Your task to perform on an android device: set the timer Image 0: 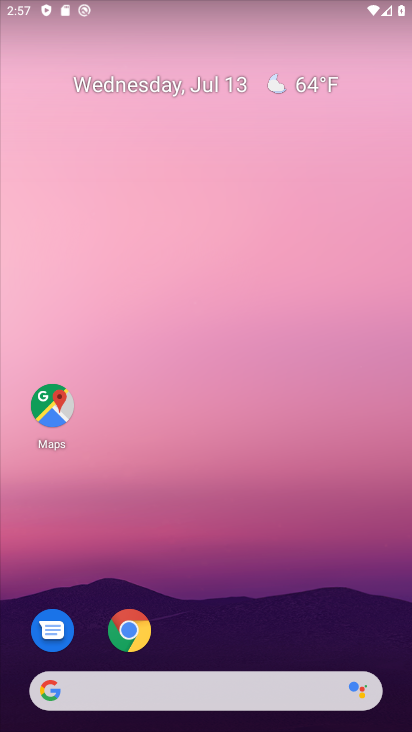
Step 0: drag from (295, 578) to (337, 94)
Your task to perform on an android device: set the timer Image 1: 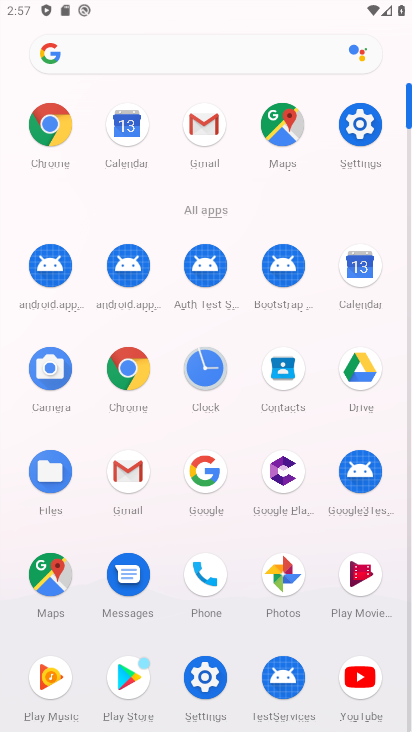
Step 1: click (196, 368)
Your task to perform on an android device: set the timer Image 2: 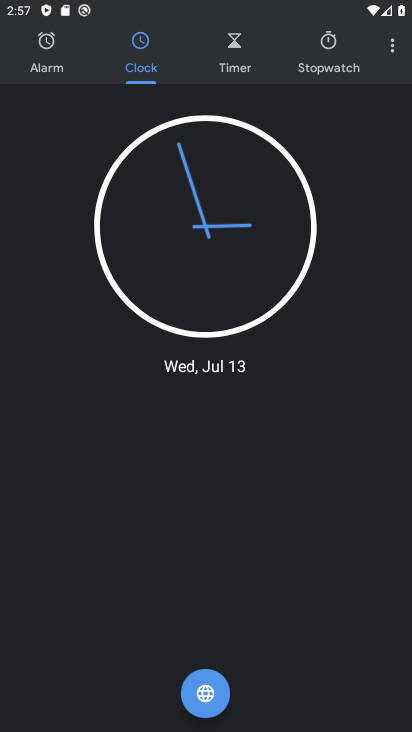
Step 2: click (241, 73)
Your task to perform on an android device: set the timer Image 3: 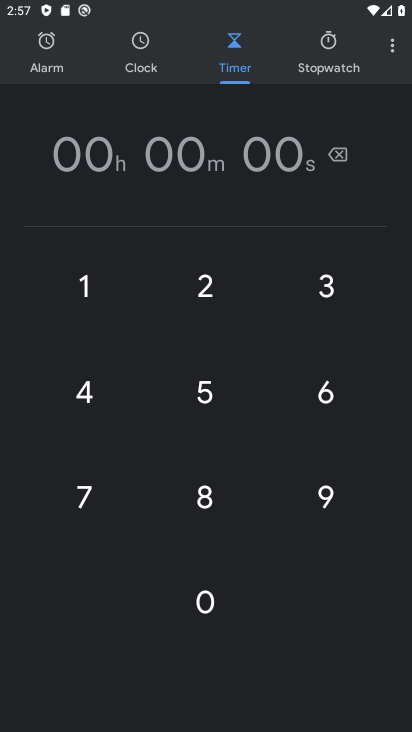
Step 3: click (200, 424)
Your task to perform on an android device: set the timer Image 4: 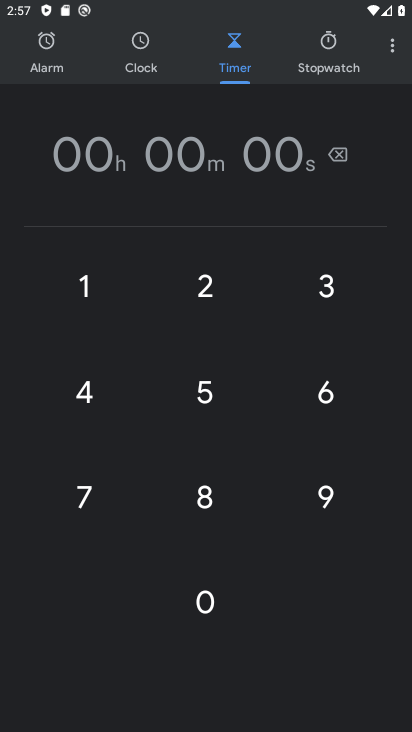
Step 4: click (200, 424)
Your task to perform on an android device: set the timer Image 5: 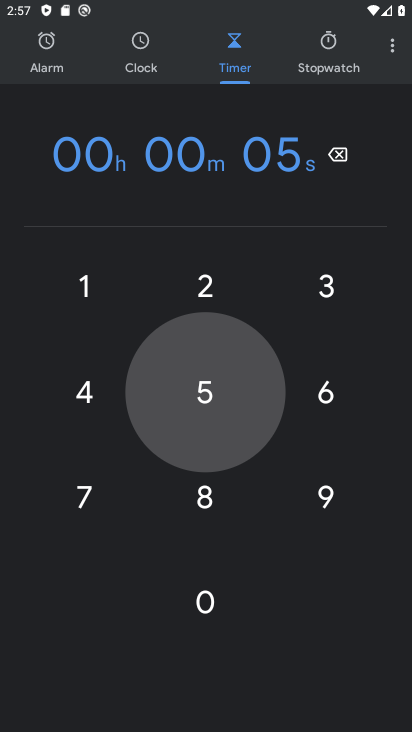
Step 5: click (200, 424)
Your task to perform on an android device: set the timer Image 6: 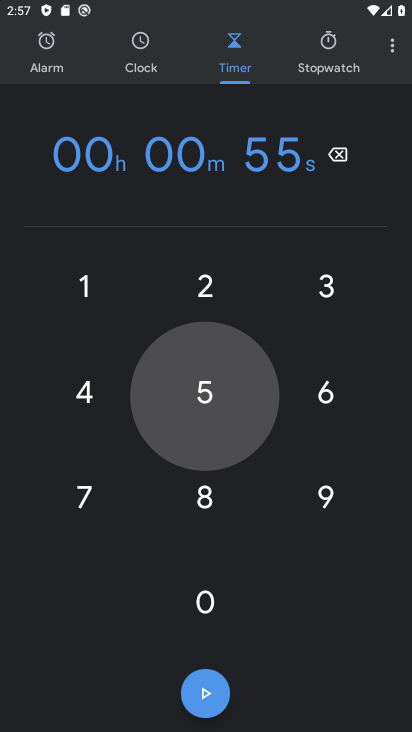
Step 6: click (200, 424)
Your task to perform on an android device: set the timer Image 7: 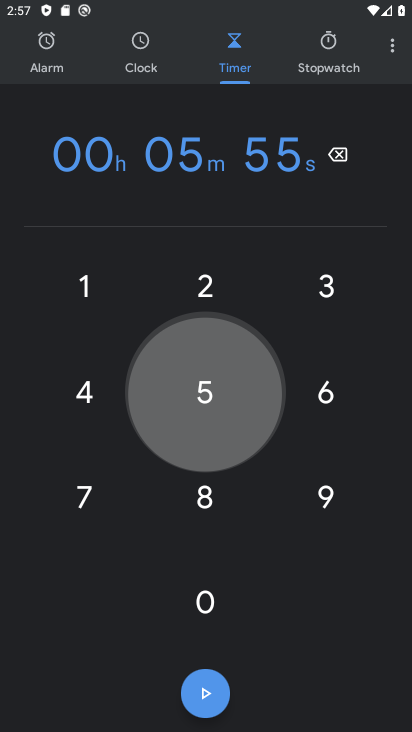
Step 7: click (200, 424)
Your task to perform on an android device: set the timer Image 8: 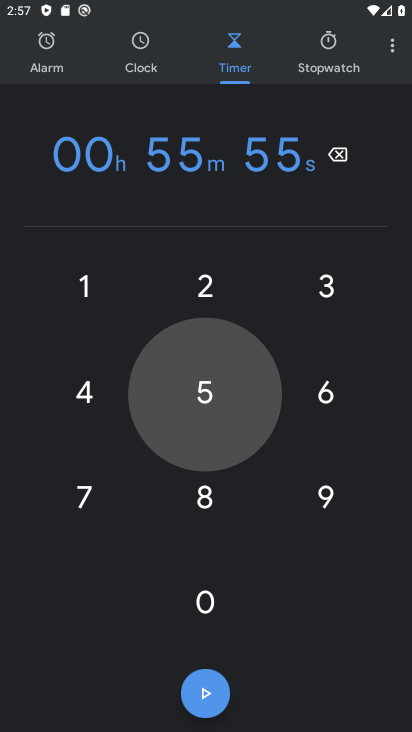
Step 8: click (200, 424)
Your task to perform on an android device: set the timer Image 9: 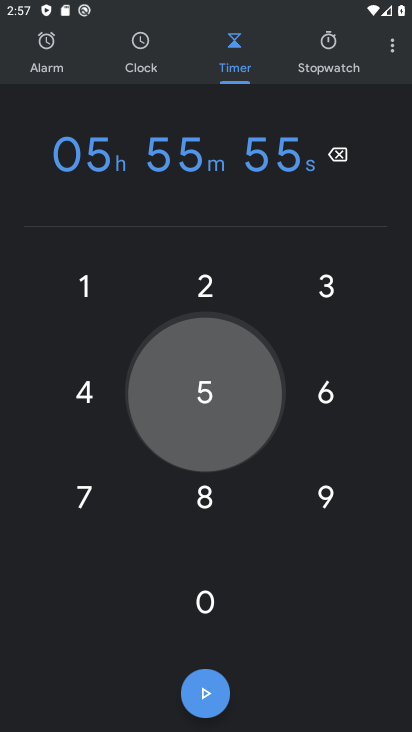
Step 9: click (200, 424)
Your task to perform on an android device: set the timer Image 10: 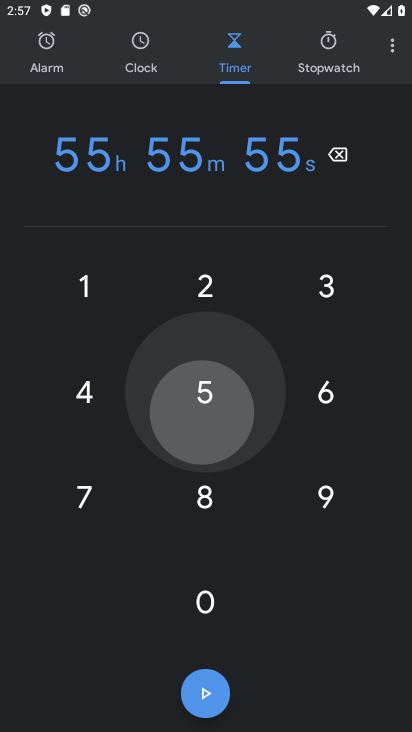
Step 10: click (200, 424)
Your task to perform on an android device: set the timer Image 11: 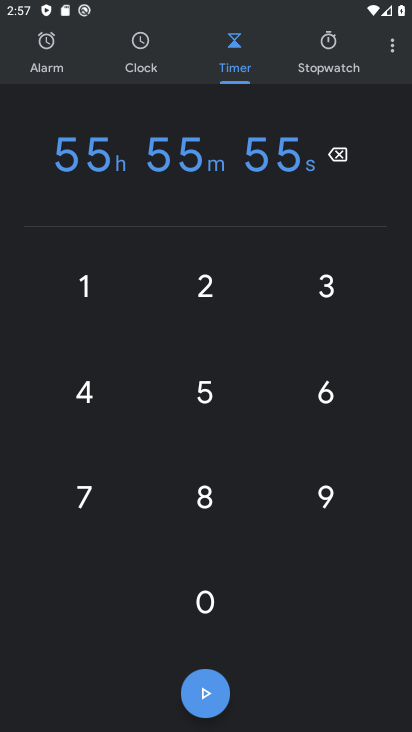
Step 11: click (204, 708)
Your task to perform on an android device: set the timer Image 12: 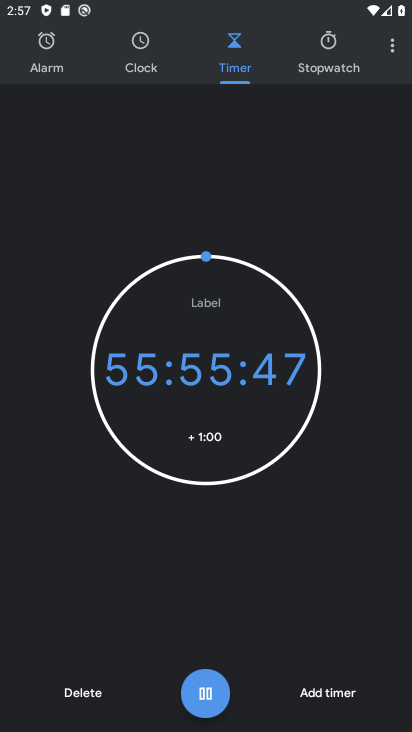
Step 12: task complete